Your task to perform on an android device: check battery use Image 0: 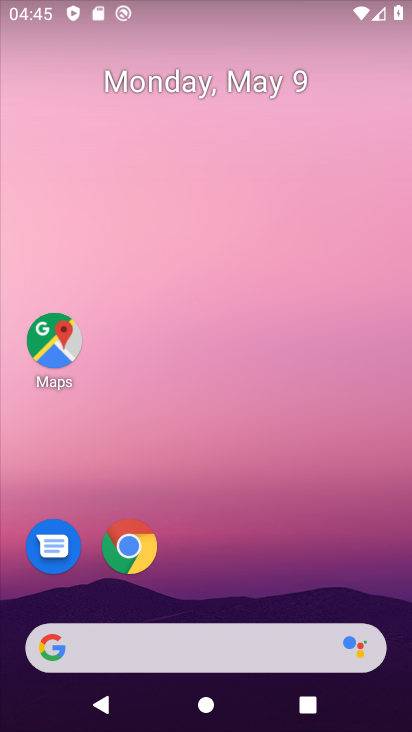
Step 0: drag from (218, 579) to (267, 161)
Your task to perform on an android device: check battery use Image 1: 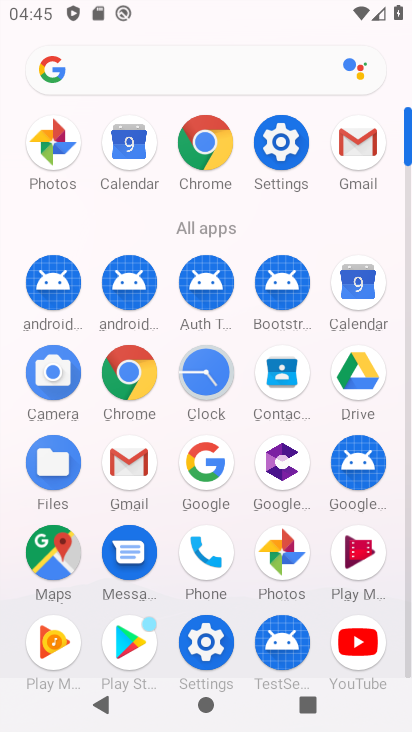
Step 1: click (284, 168)
Your task to perform on an android device: check battery use Image 2: 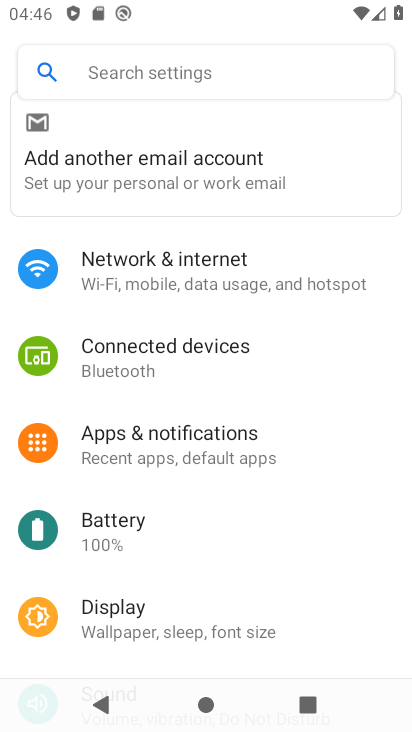
Step 2: click (150, 536)
Your task to perform on an android device: check battery use Image 3: 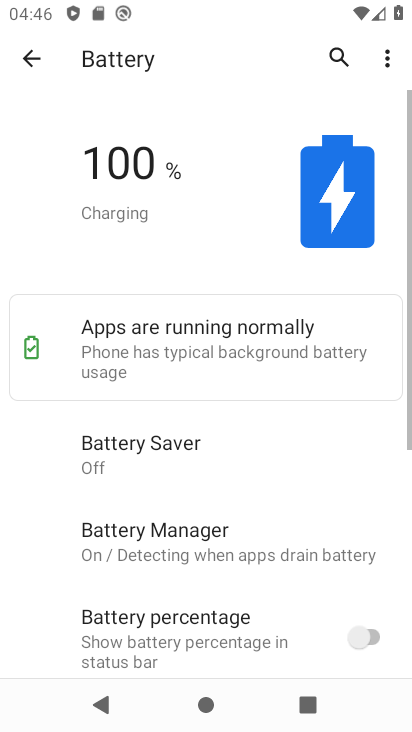
Step 3: click (395, 58)
Your task to perform on an android device: check battery use Image 4: 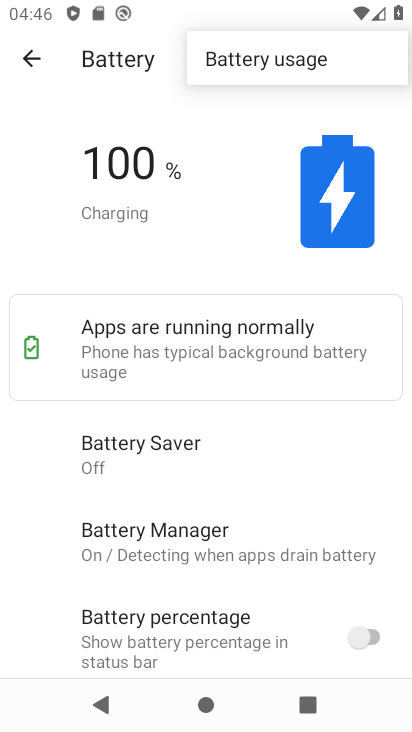
Step 4: click (331, 67)
Your task to perform on an android device: check battery use Image 5: 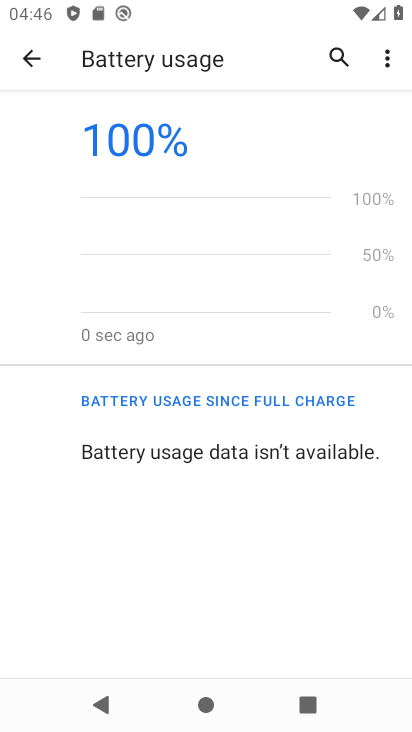
Step 5: task complete